Your task to perform on an android device: Turn off the flashlight Image 0: 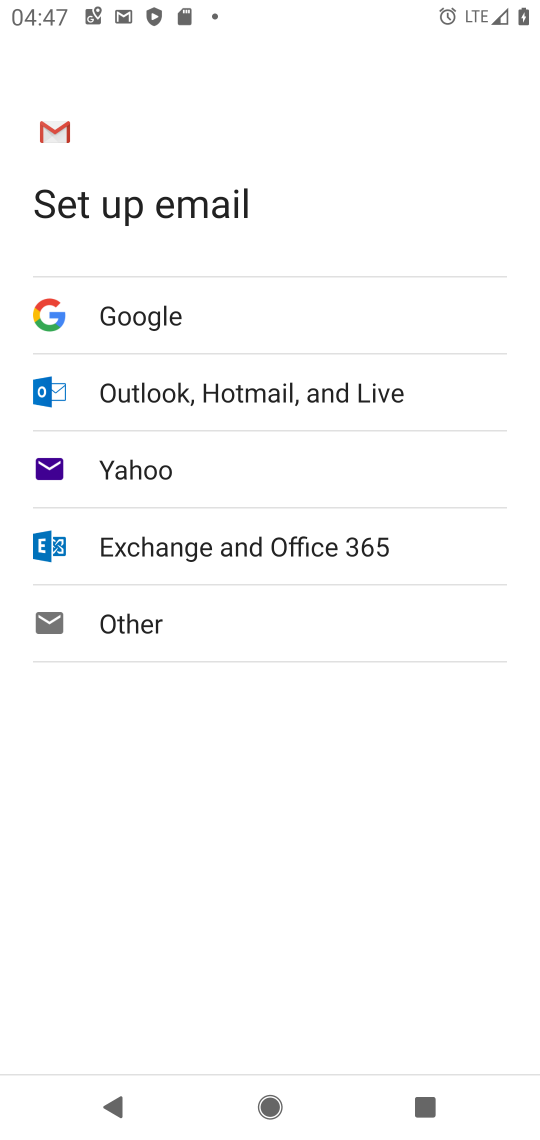
Step 0: drag from (256, 998) to (339, 258)
Your task to perform on an android device: Turn off the flashlight Image 1: 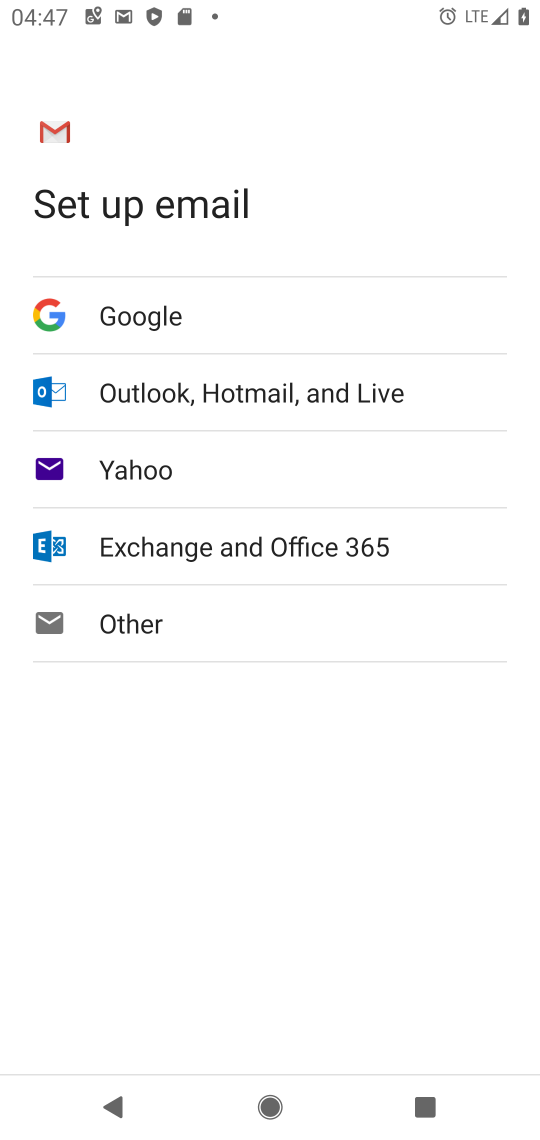
Step 1: press back button
Your task to perform on an android device: Turn off the flashlight Image 2: 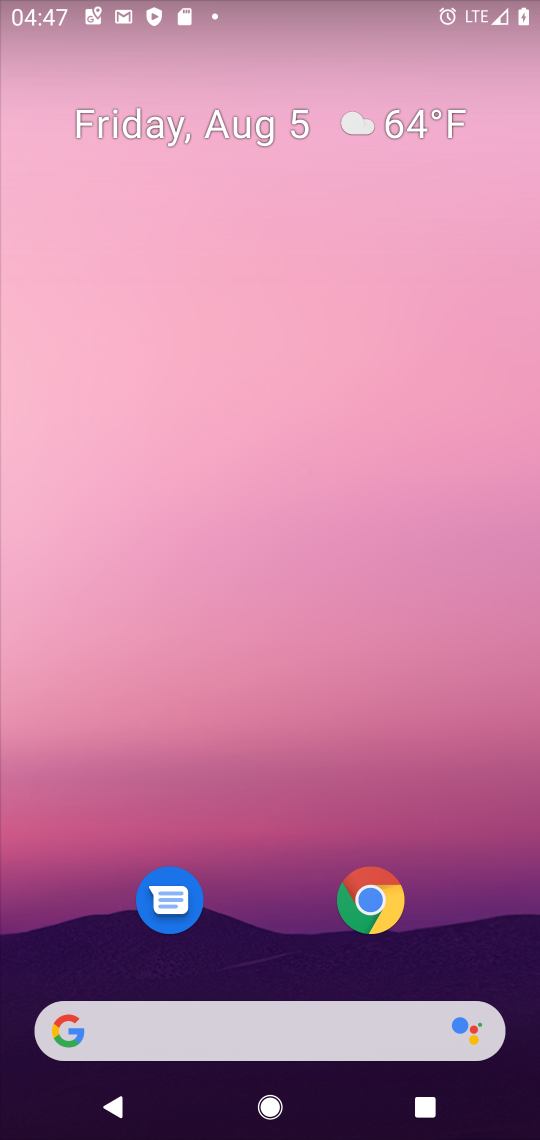
Step 2: drag from (298, 842) to (327, 20)
Your task to perform on an android device: Turn off the flashlight Image 3: 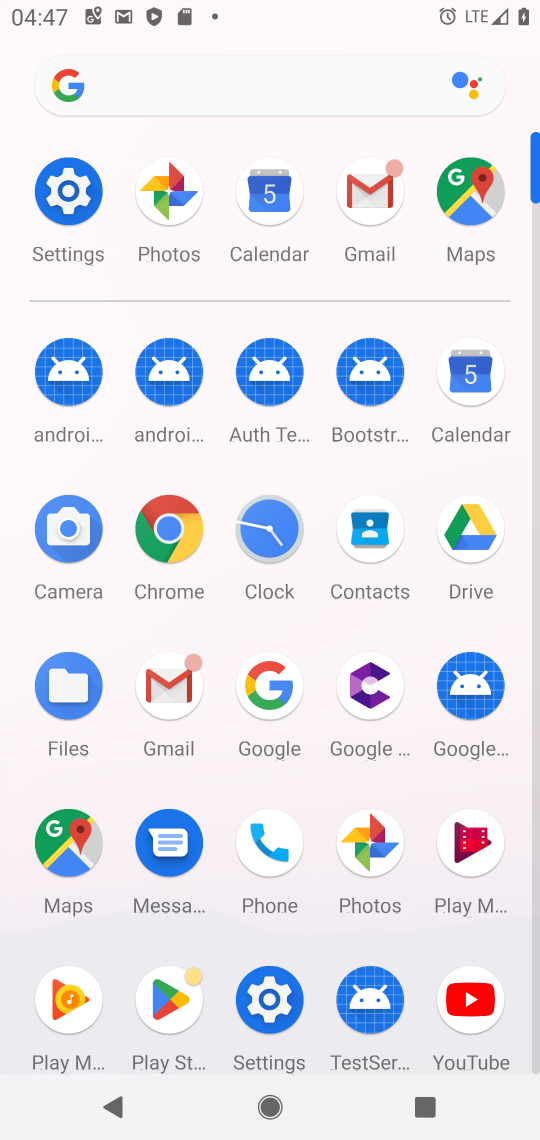
Step 3: click (275, 558)
Your task to perform on an android device: Turn off the flashlight Image 4: 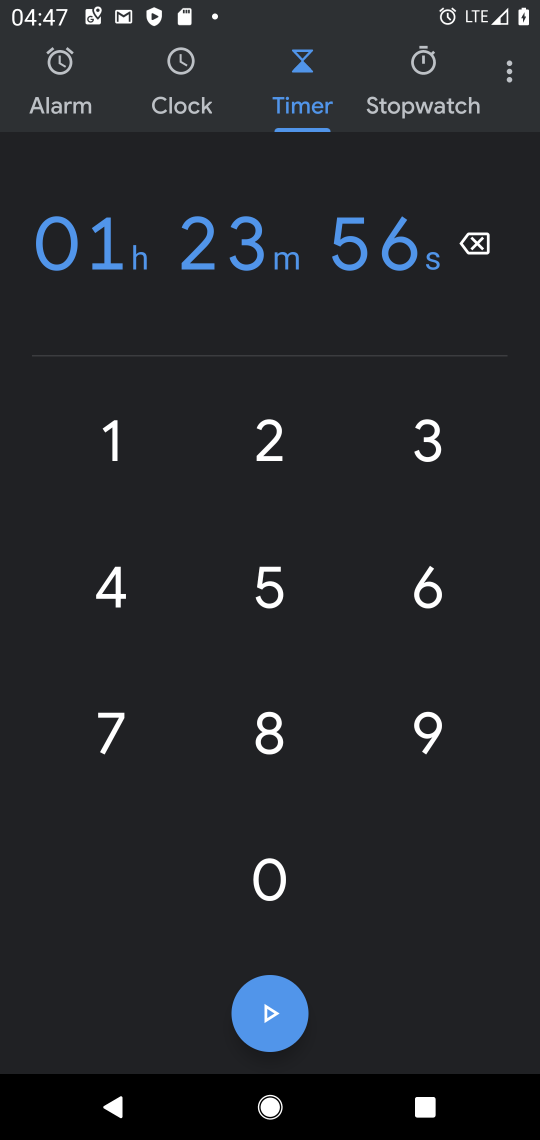
Step 4: press back button
Your task to perform on an android device: Turn off the flashlight Image 5: 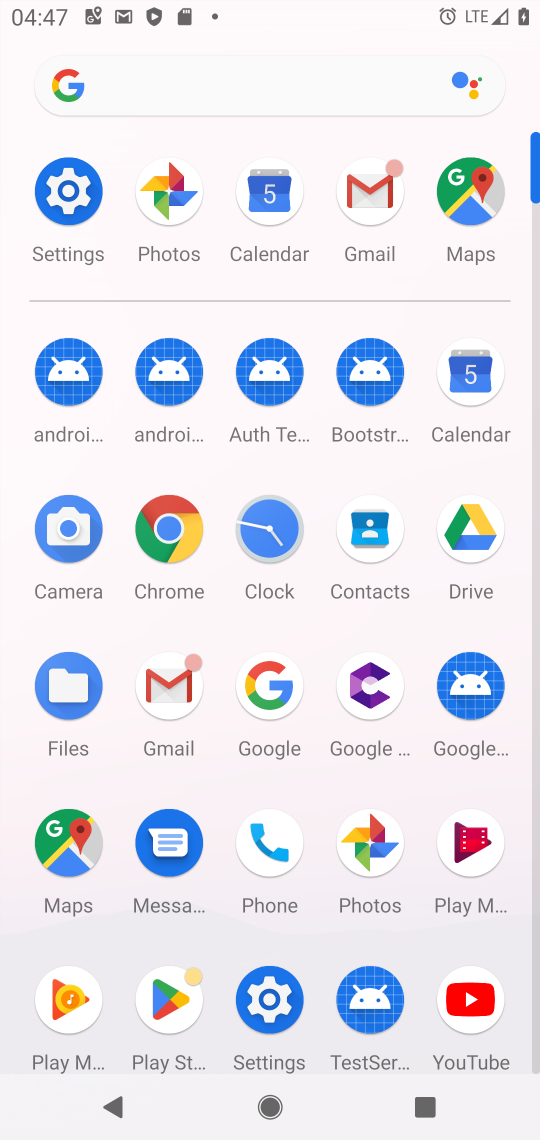
Step 5: click (80, 171)
Your task to perform on an android device: Turn off the flashlight Image 6: 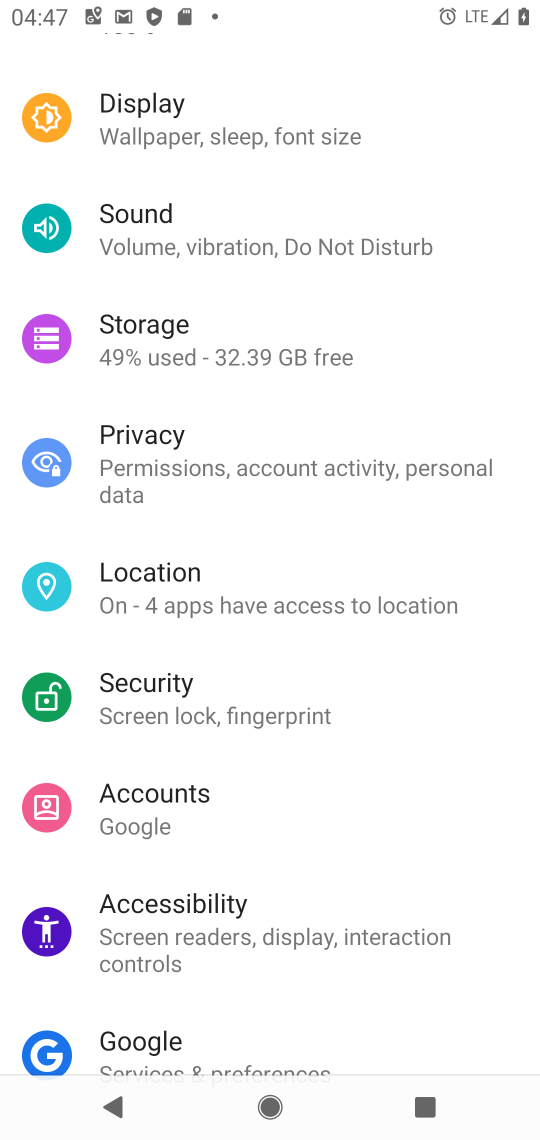
Step 6: drag from (278, 179) to (243, 1055)
Your task to perform on an android device: Turn off the flashlight Image 7: 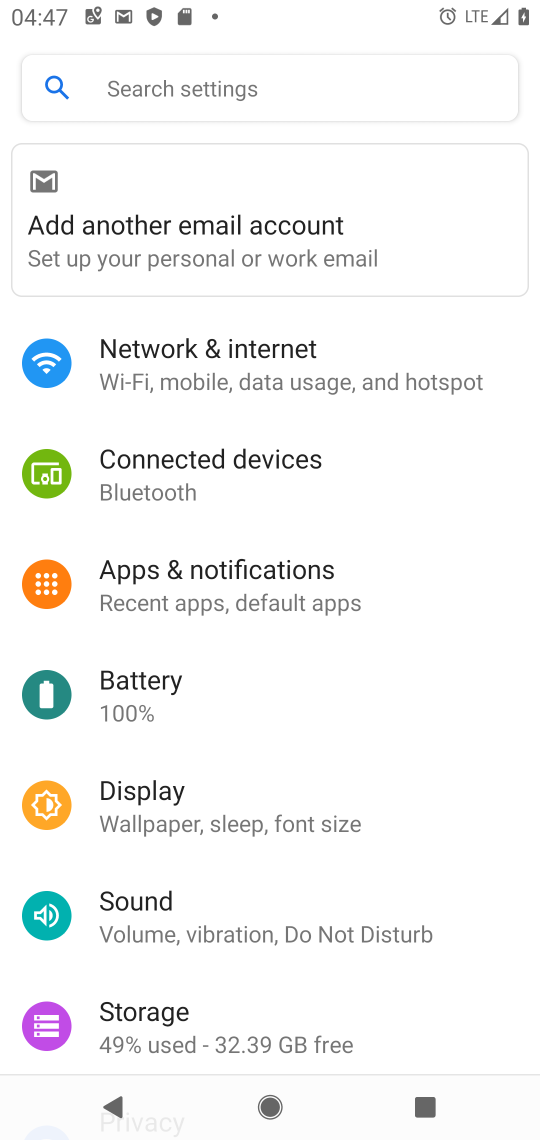
Step 7: click (175, 85)
Your task to perform on an android device: Turn off the flashlight Image 8: 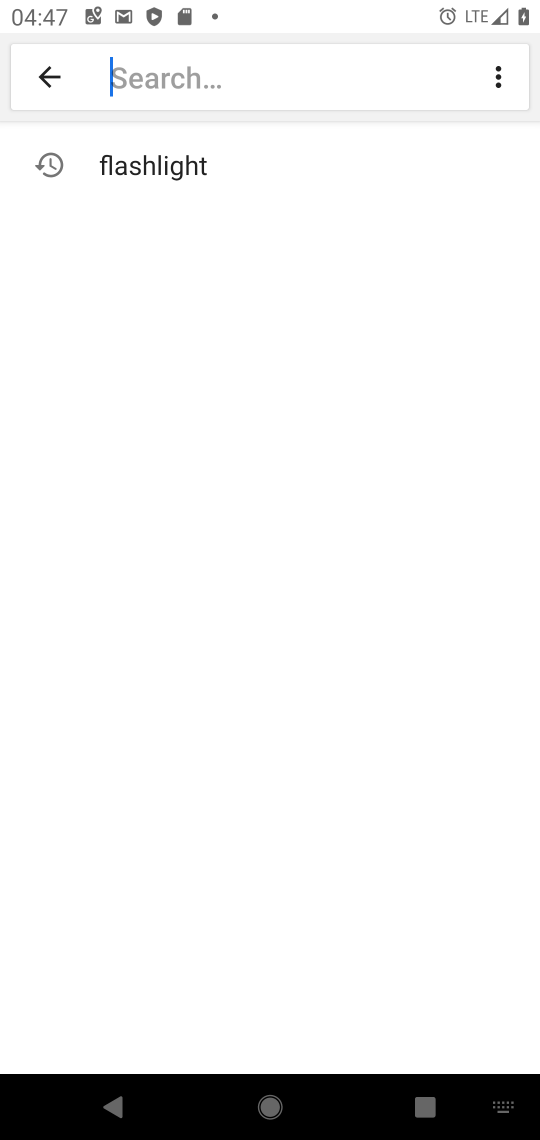
Step 8: type "flash"
Your task to perform on an android device: Turn off the flashlight Image 9: 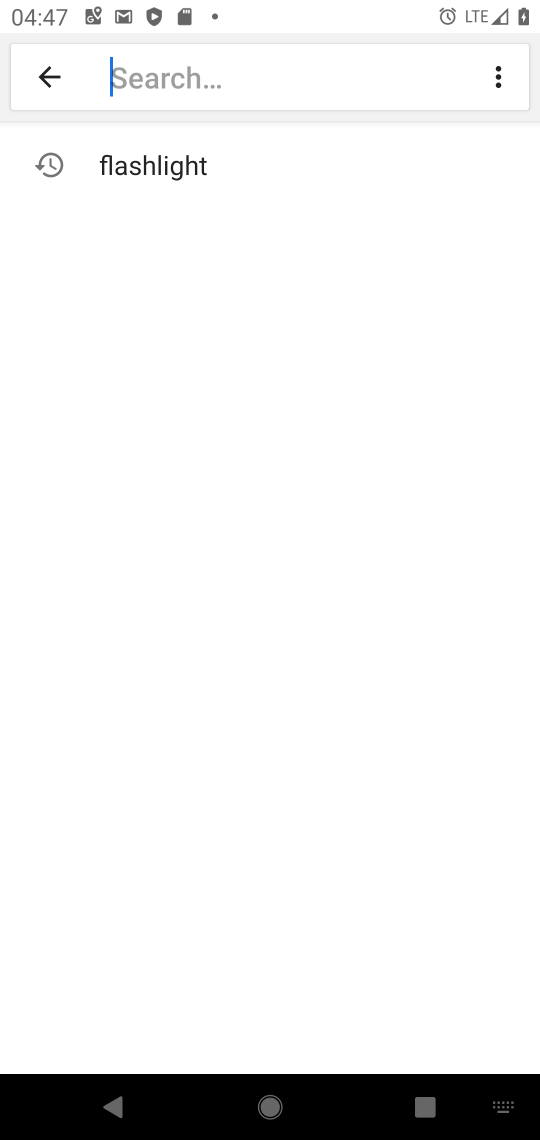
Step 9: click (192, 159)
Your task to perform on an android device: Turn off the flashlight Image 10: 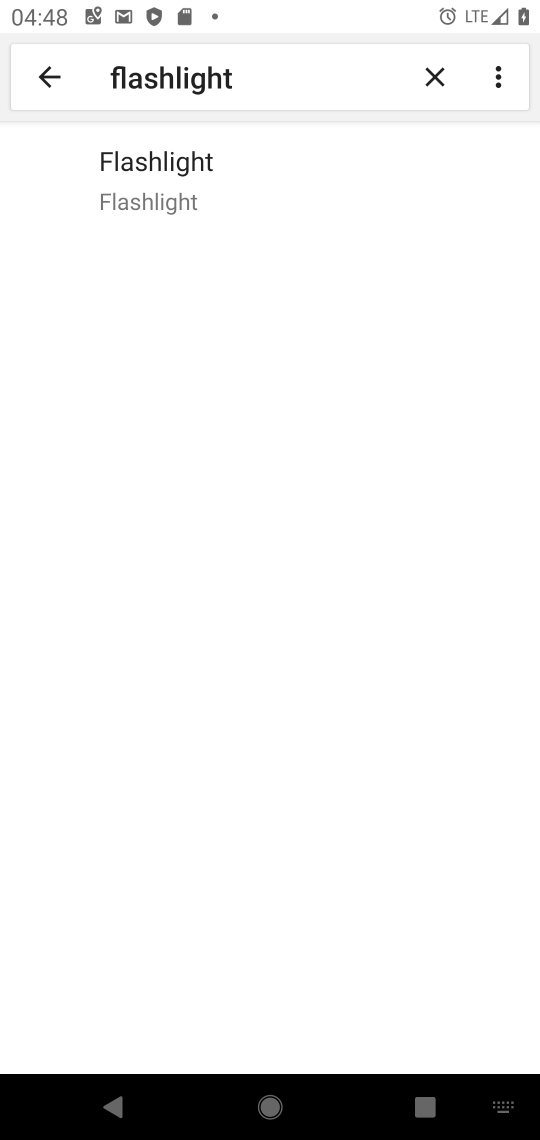
Step 10: click (188, 157)
Your task to perform on an android device: Turn off the flashlight Image 11: 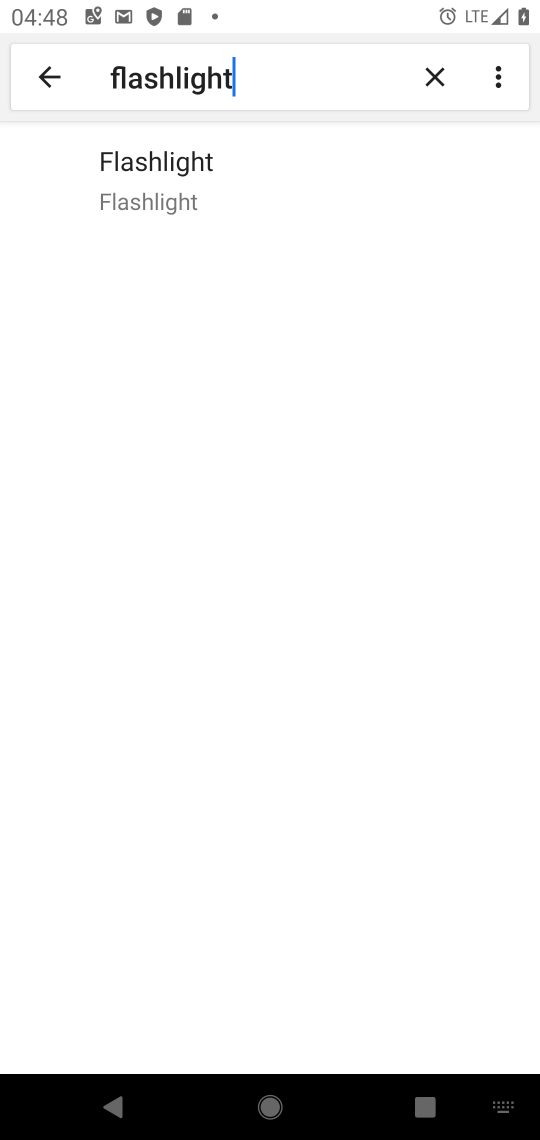
Step 11: task complete